Your task to perform on an android device: check the backup settings in the google photos Image 0: 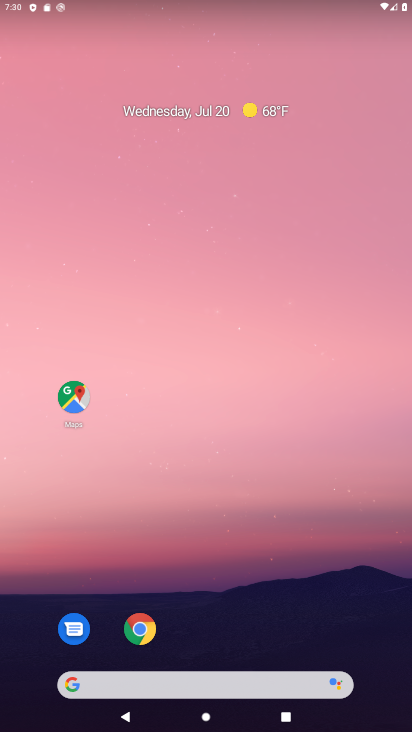
Step 0: drag from (332, 599) to (385, 125)
Your task to perform on an android device: check the backup settings in the google photos Image 1: 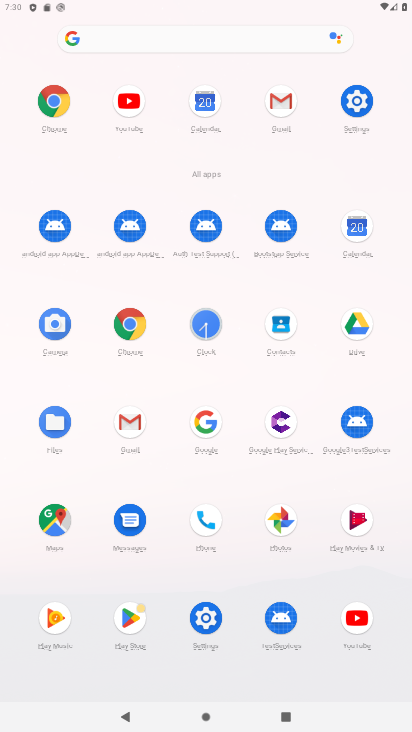
Step 1: click (276, 518)
Your task to perform on an android device: check the backup settings in the google photos Image 2: 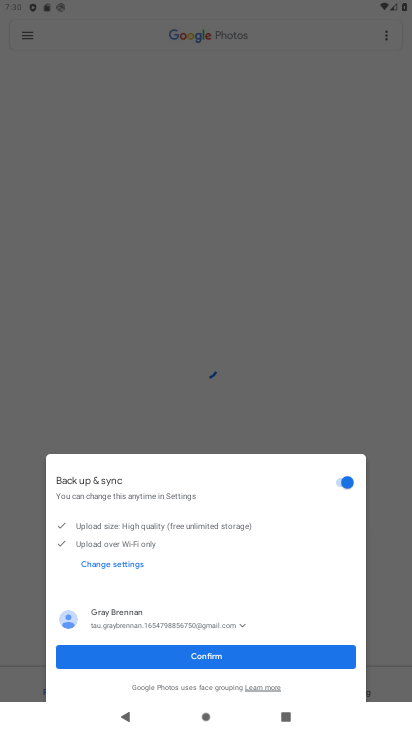
Step 2: click (231, 648)
Your task to perform on an android device: check the backup settings in the google photos Image 3: 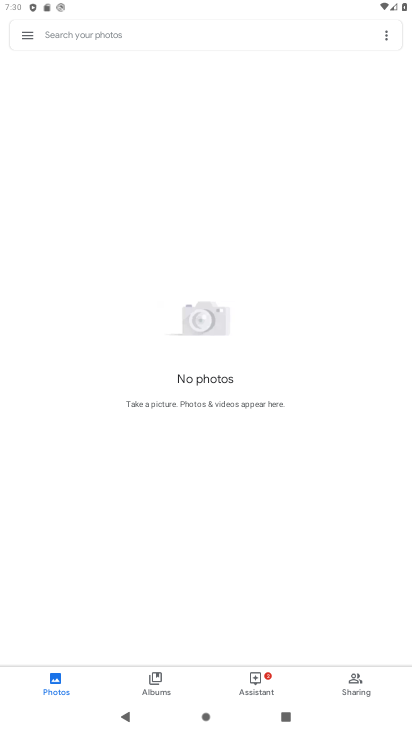
Step 3: click (26, 37)
Your task to perform on an android device: check the backup settings in the google photos Image 4: 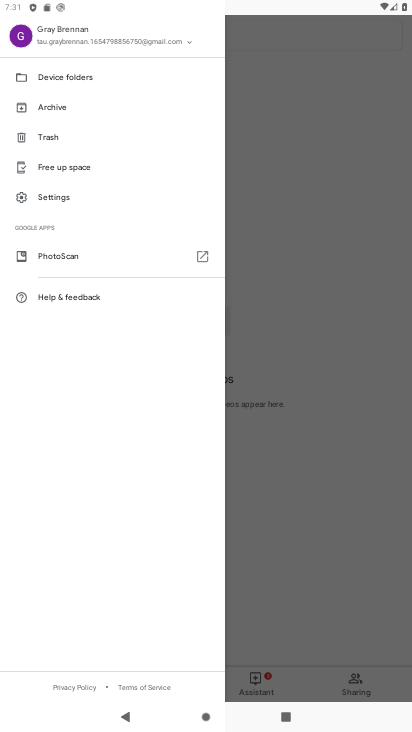
Step 4: click (71, 194)
Your task to perform on an android device: check the backup settings in the google photos Image 5: 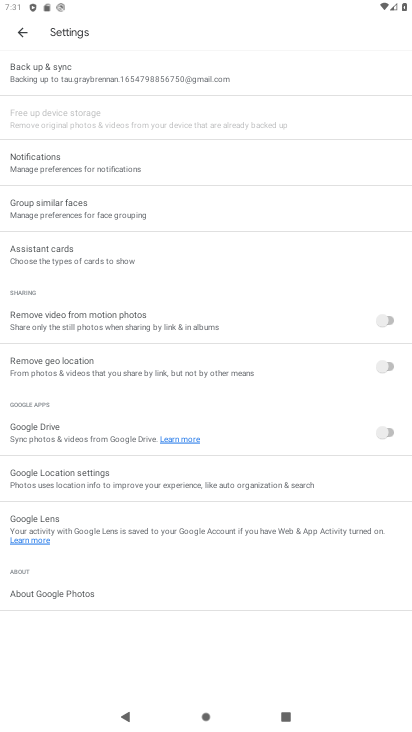
Step 5: click (118, 75)
Your task to perform on an android device: check the backup settings in the google photos Image 6: 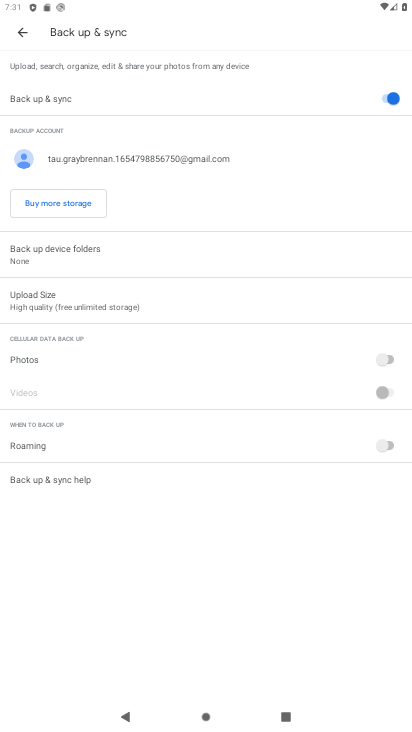
Step 6: task complete